Your task to perform on an android device: Open location settings Image 0: 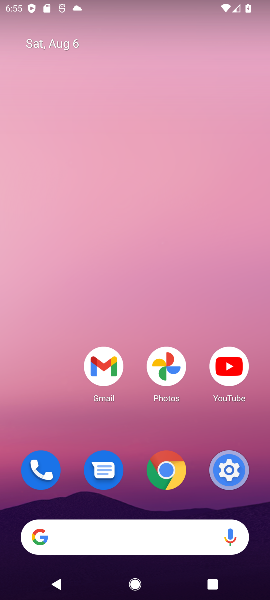
Step 0: press home button
Your task to perform on an android device: Open location settings Image 1: 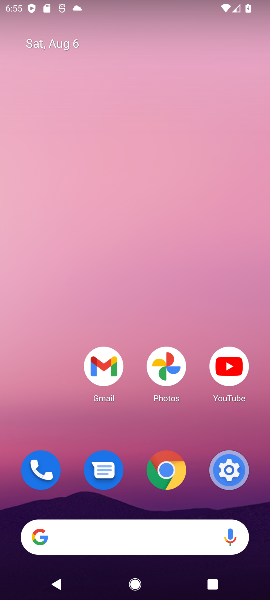
Step 1: drag from (115, 569) to (108, 89)
Your task to perform on an android device: Open location settings Image 2: 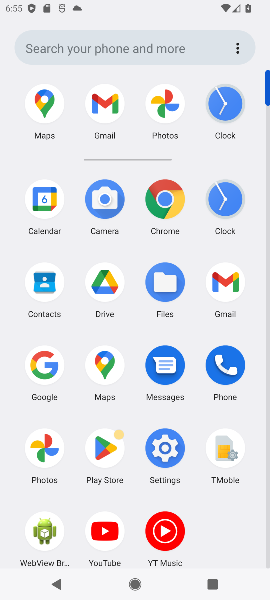
Step 2: click (147, 452)
Your task to perform on an android device: Open location settings Image 3: 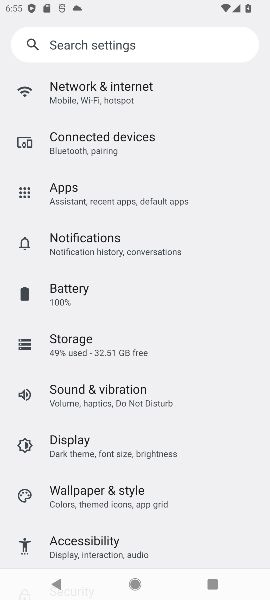
Step 3: drag from (161, 474) to (130, 136)
Your task to perform on an android device: Open location settings Image 4: 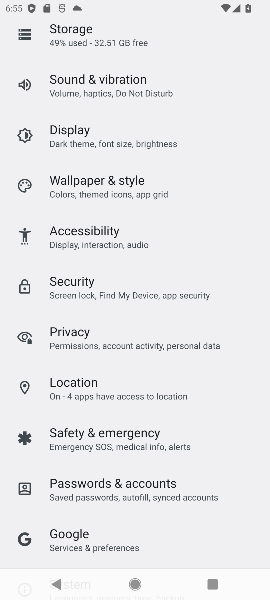
Step 4: click (92, 382)
Your task to perform on an android device: Open location settings Image 5: 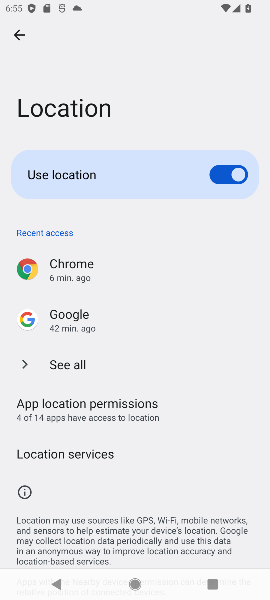
Step 5: task complete